Your task to perform on an android device: turn on location history Image 0: 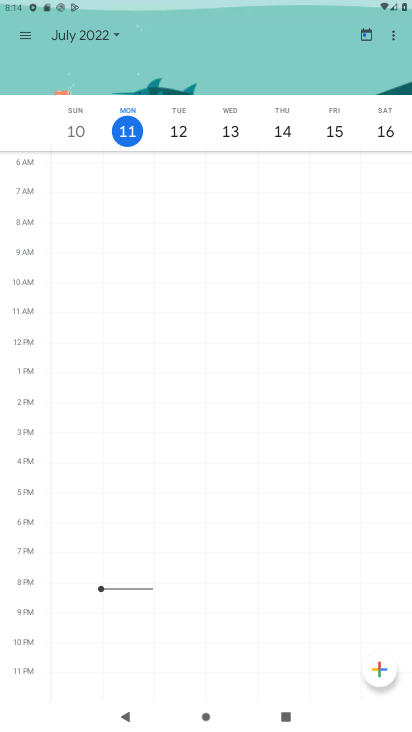
Step 0: press home button
Your task to perform on an android device: turn on location history Image 1: 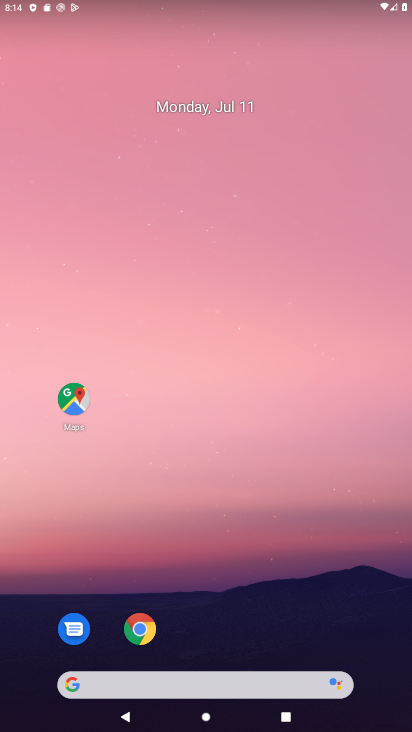
Step 1: drag from (232, 647) to (156, 78)
Your task to perform on an android device: turn on location history Image 2: 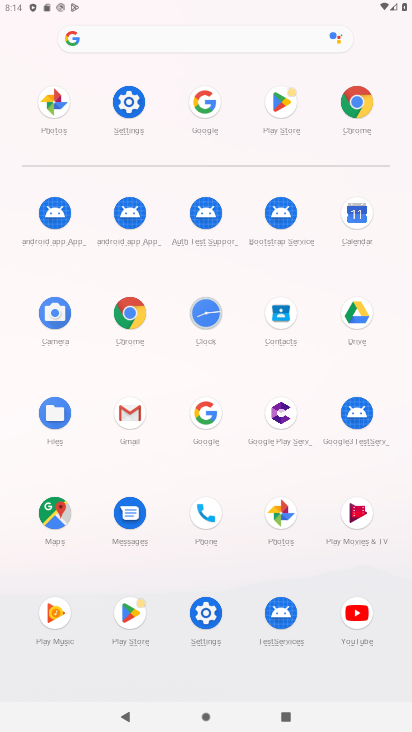
Step 2: click (133, 104)
Your task to perform on an android device: turn on location history Image 3: 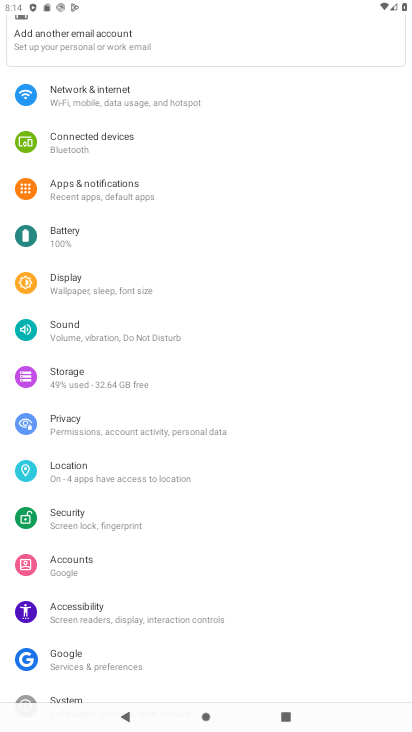
Step 3: click (71, 464)
Your task to perform on an android device: turn on location history Image 4: 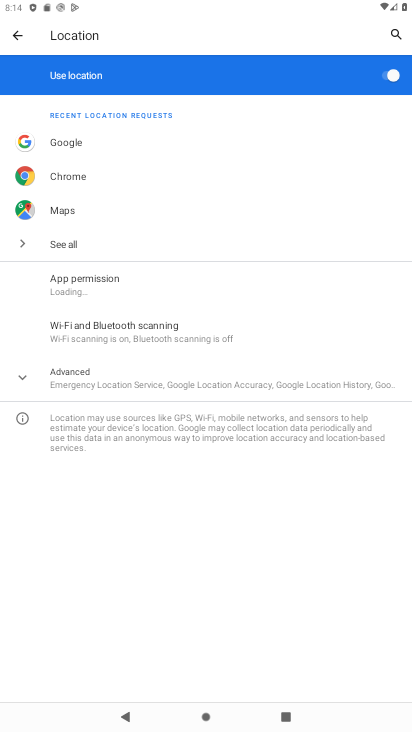
Step 4: click (71, 363)
Your task to perform on an android device: turn on location history Image 5: 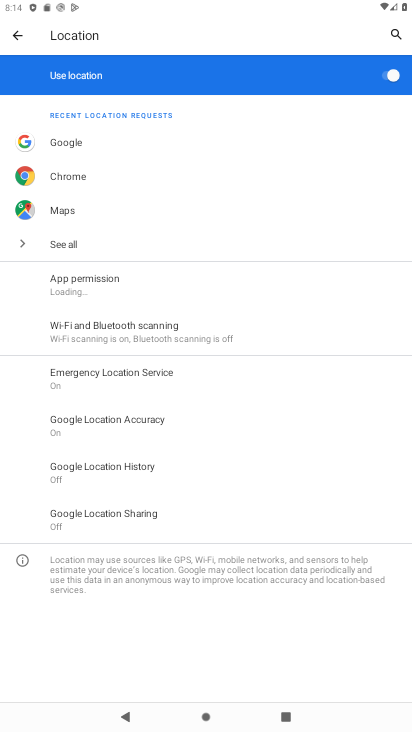
Step 5: click (132, 475)
Your task to perform on an android device: turn on location history Image 6: 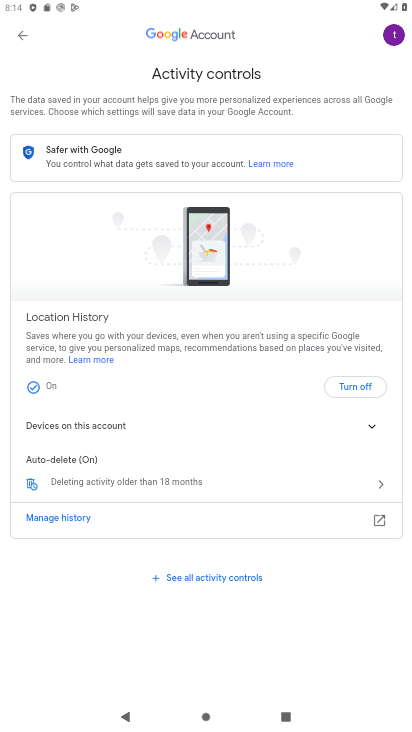
Step 6: task complete